Your task to perform on an android device: open chrome privacy settings Image 0: 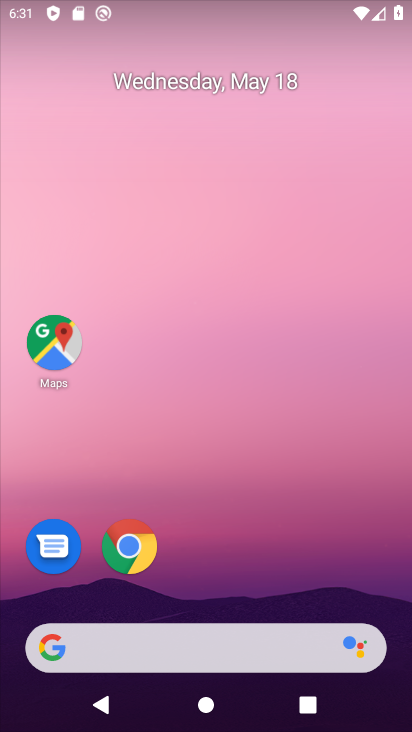
Step 0: drag from (355, 583) to (299, 344)
Your task to perform on an android device: open chrome privacy settings Image 1: 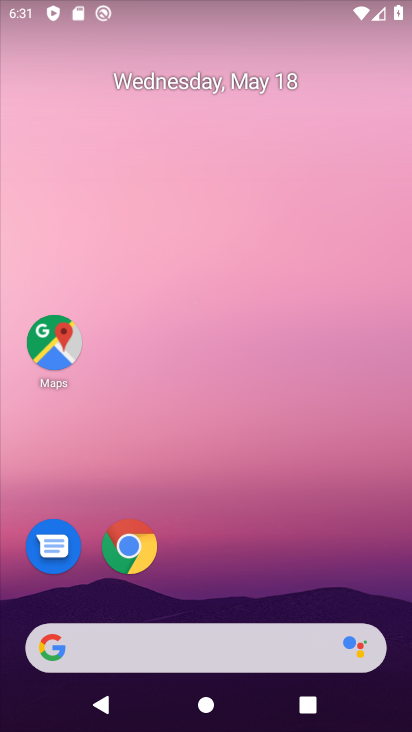
Step 1: click (122, 558)
Your task to perform on an android device: open chrome privacy settings Image 2: 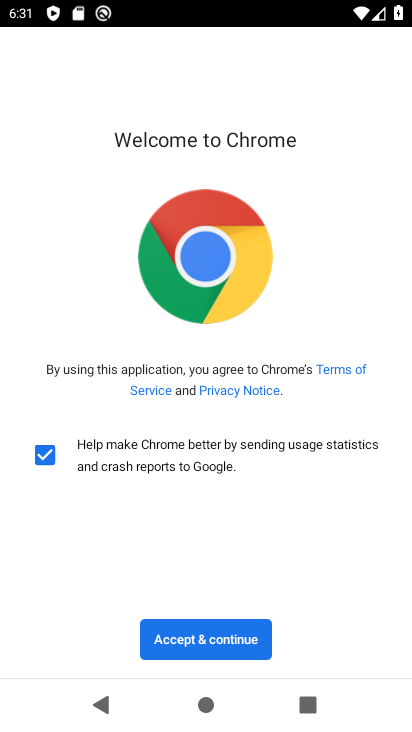
Step 2: click (195, 653)
Your task to perform on an android device: open chrome privacy settings Image 3: 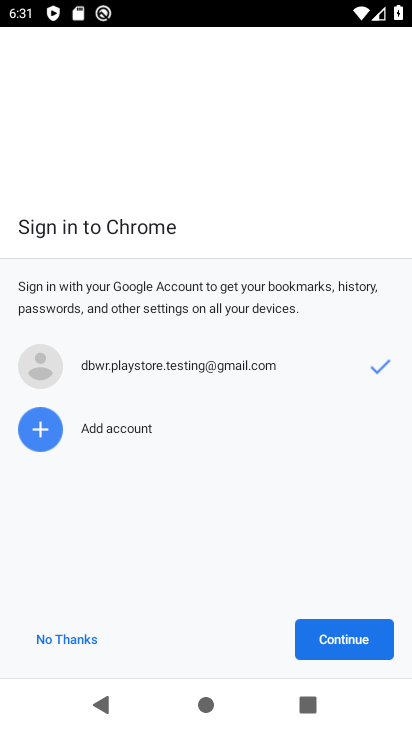
Step 3: click (344, 636)
Your task to perform on an android device: open chrome privacy settings Image 4: 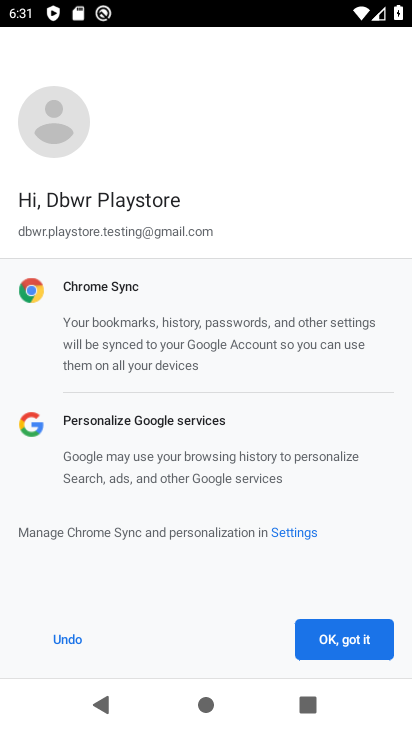
Step 4: click (344, 636)
Your task to perform on an android device: open chrome privacy settings Image 5: 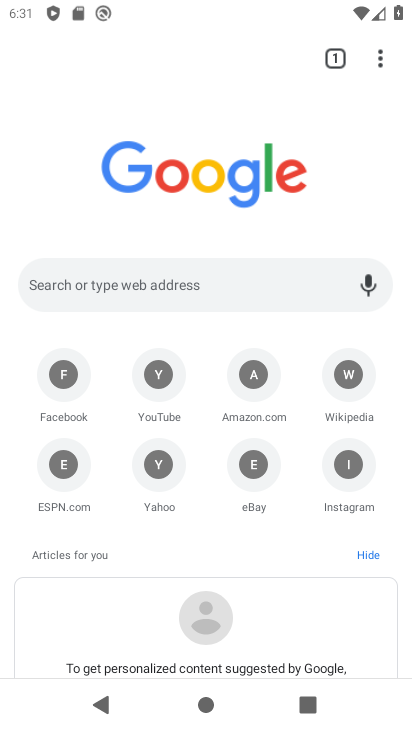
Step 5: click (344, 636)
Your task to perform on an android device: open chrome privacy settings Image 6: 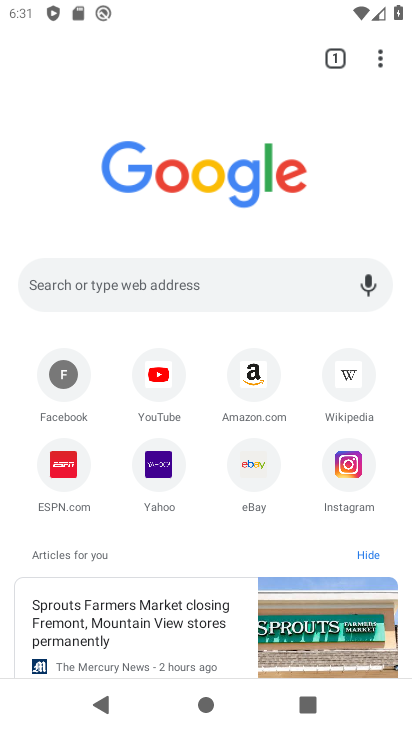
Step 6: click (379, 53)
Your task to perform on an android device: open chrome privacy settings Image 7: 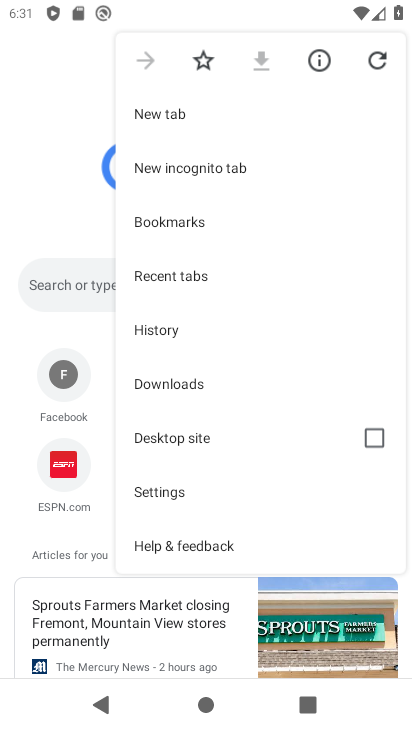
Step 7: click (213, 494)
Your task to perform on an android device: open chrome privacy settings Image 8: 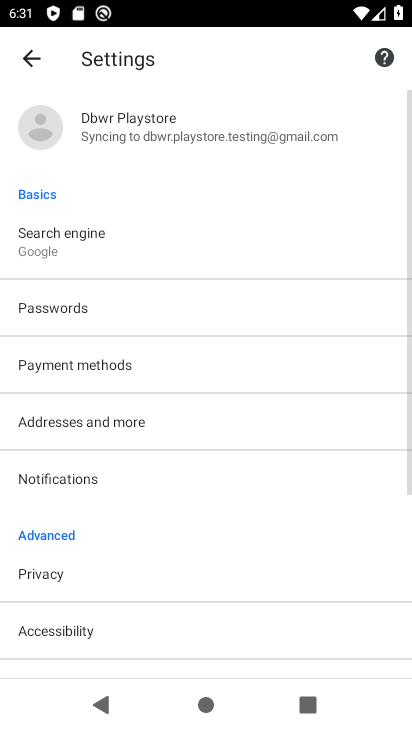
Step 8: click (73, 591)
Your task to perform on an android device: open chrome privacy settings Image 9: 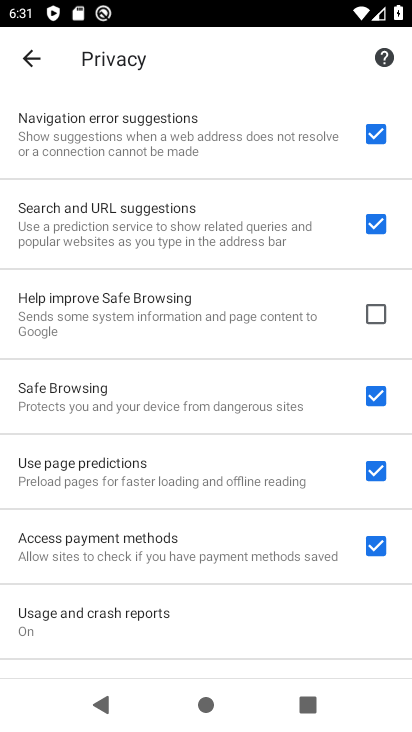
Step 9: task complete